Your task to perform on an android device: Do I have any events today? Image 0: 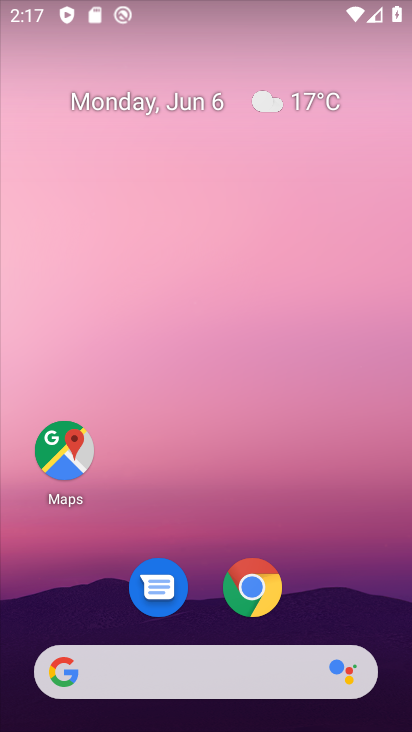
Step 0: drag from (310, 573) to (206, 61)
Your task to perform on an android device: Do I have any events today? Image 1: 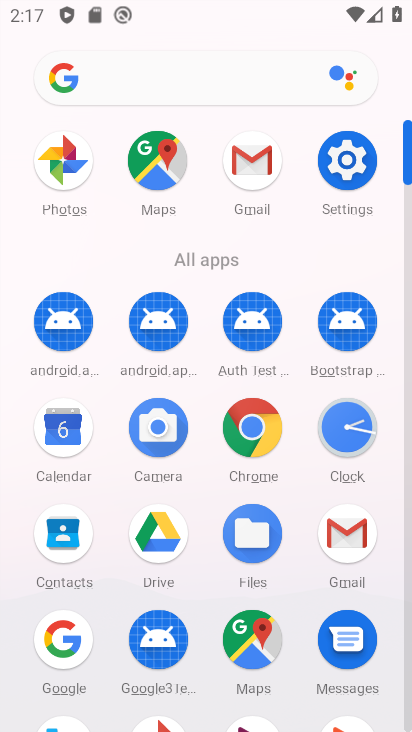
Step 1: drag from (10, 539) to (16, 198)
Your task to perform on an android device: Do I have any events today? Image 2: 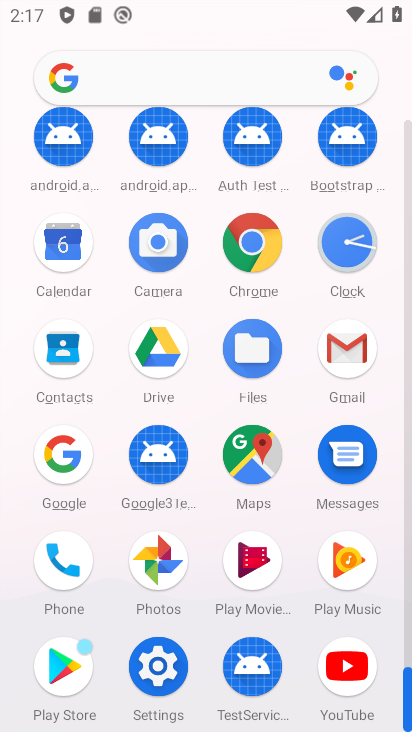
Step 2: click (61, 240)
Your task to perform on an android device: Do I have any events today? Image 3: 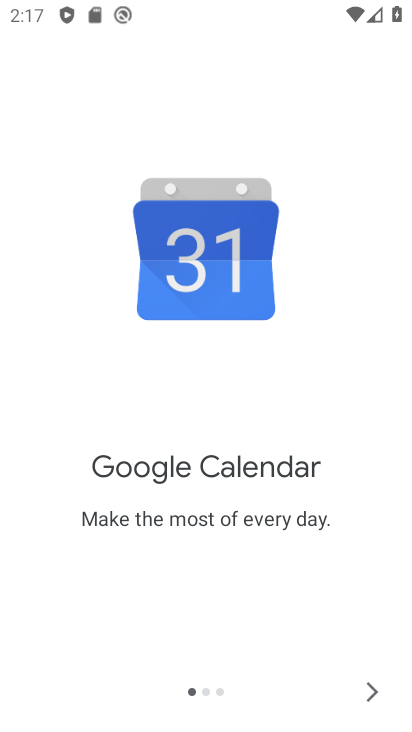
Step 3: click (374, 678)
Your task to perform on an android device: Do I have any events today? Image 4: 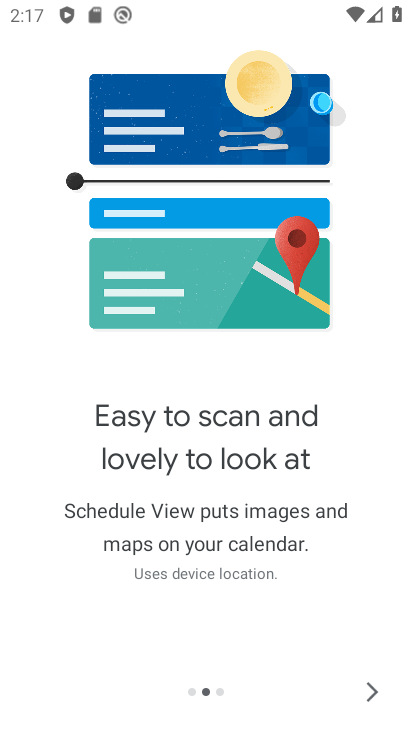
Step 4: click (375, 677)
Your task to perform on an android device: Do I have any events today? Image 5: 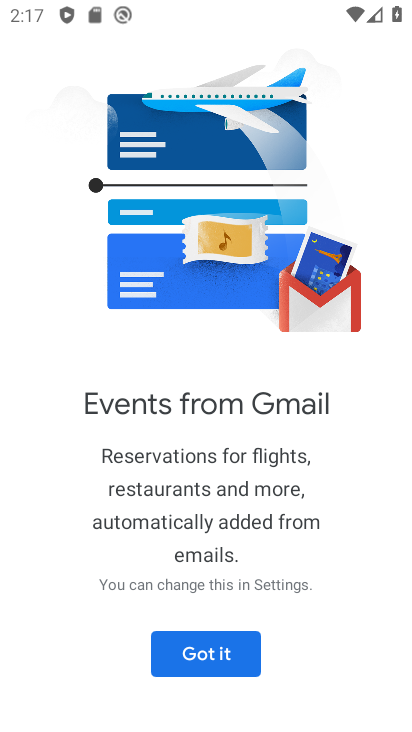
Step 5: click (237, 654)
Your task to perform on an android device: Do I have any events today? Image 6: 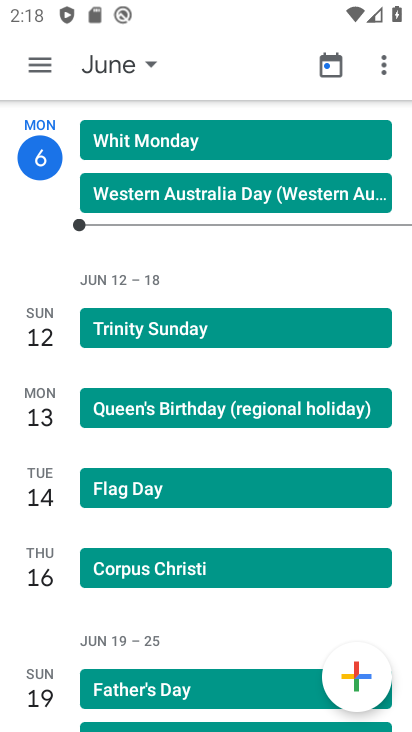
Step 6: click (327, 66)
Your task to perform on an android device: Do I have any events today? Image 7: 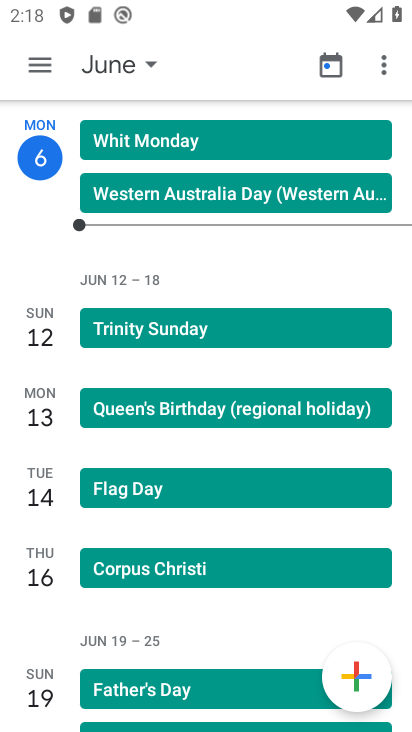
Step 7: task complete